Your task to perform on an android device: turn on showing notifications on the lock screen Image 0: 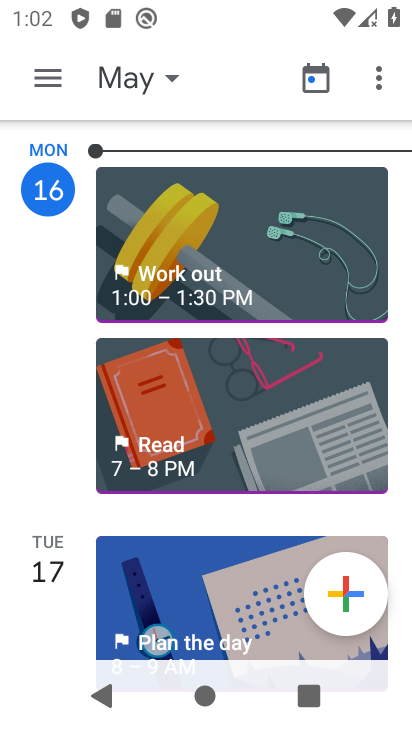
Step 0: press home button
Your task to perform on an android device: turn on showing notifications on the lock screen Image 1: 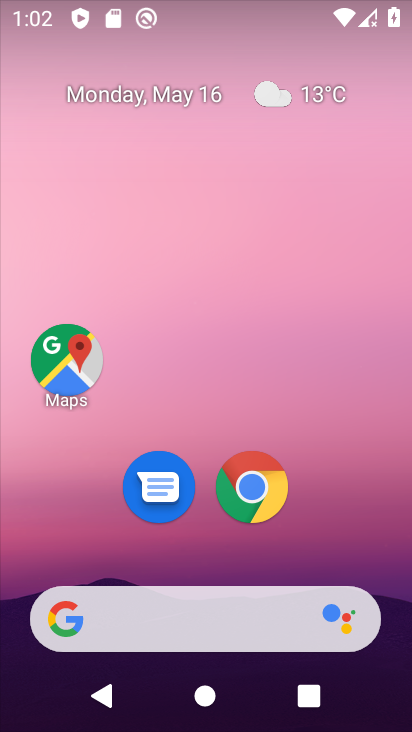
Step 1: drag from (348, 229) to (336, 169)
Your task to perform on an android device: turn on showing notifications on the lock screen Image 2: 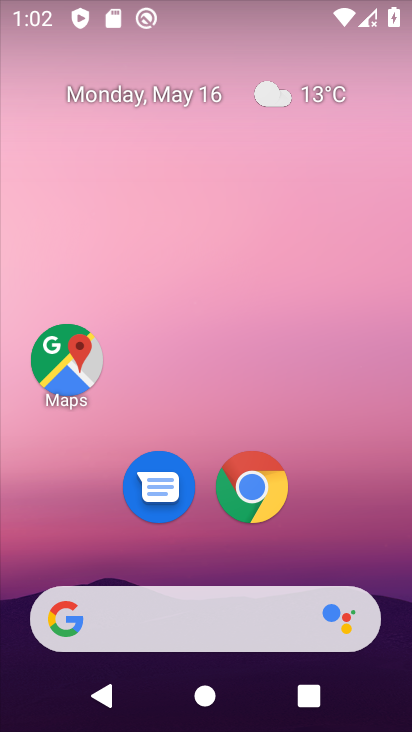
Step 2: drag from (400, 623) to (343, 6)
Your task to perform on an android device: turn on showing notifications on the lock screen Image 3: 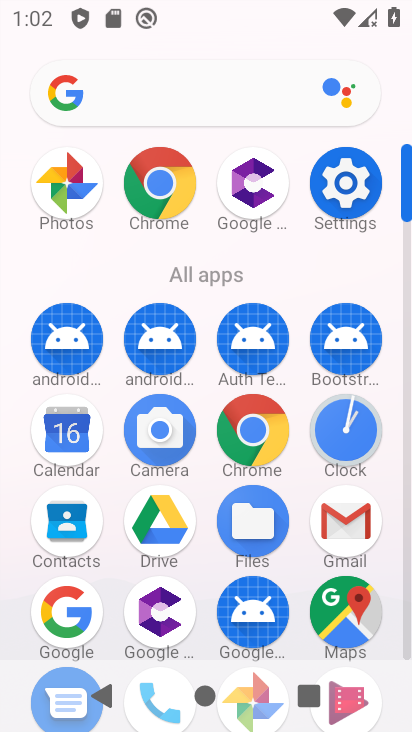
Step 3: click (336, 206)
Your task to perform on an android device: turn on showing notifications on the lock screen Image 4: 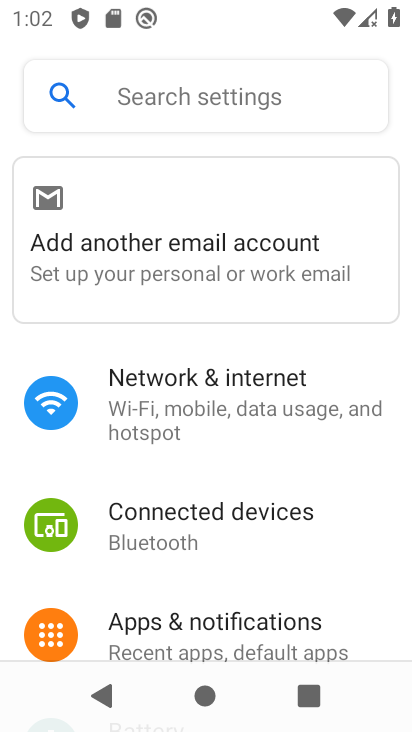
Step 4: click (162, 462)
Your task to perform on an android device: turn on showing notifications on the lock screen Image 5: 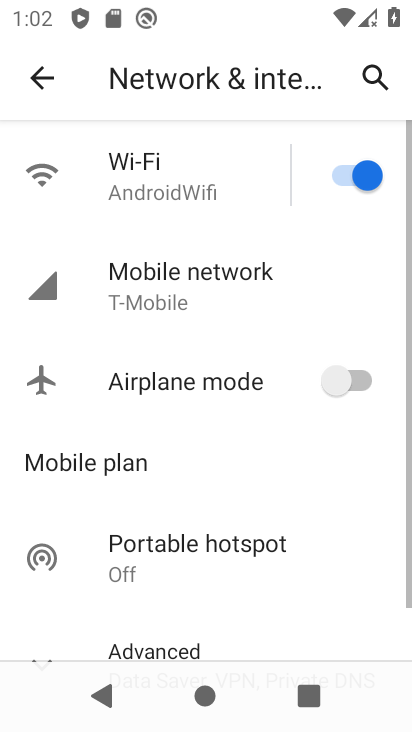
Step 5: click (37, 66)
Your task to perform on an android device: turn on showing notifications on the lock screen Image 6: 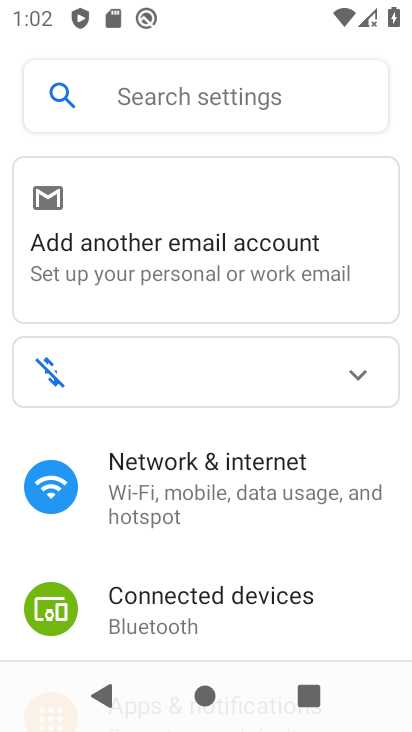
Step 6: click (184, 478)
Your task to perform on an android device: turn on showing notifications on the lock screen Image 7: 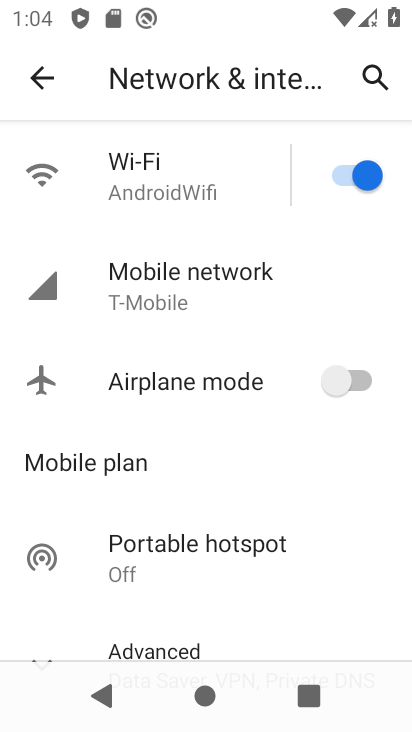
Step 7: drag from (357, 506) to (366, 301)
Your task to perform on an android device: turn on showing notifications on the lock screen Image 8: 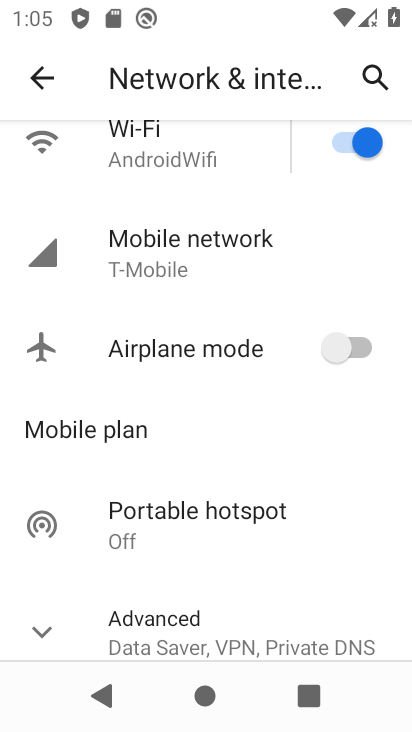
Step 8: click (219, 620)
Your task to perform on an android device: turn on showing notifications on the lock screen Image 9: 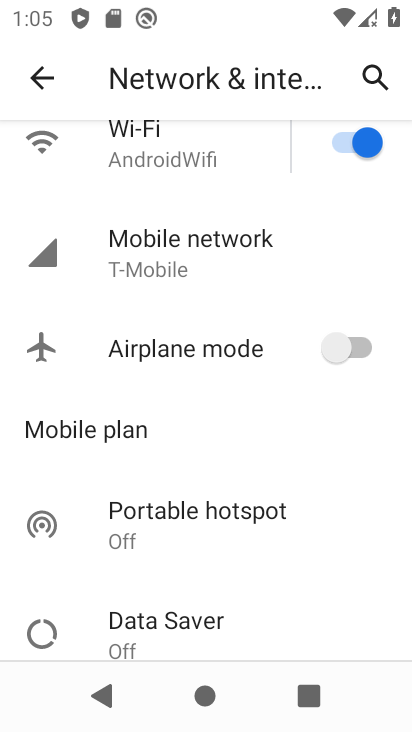
Step 9: click (37, 77)
Your task to perform on an android device: turn on showing notifications on the lock screen Image 10: 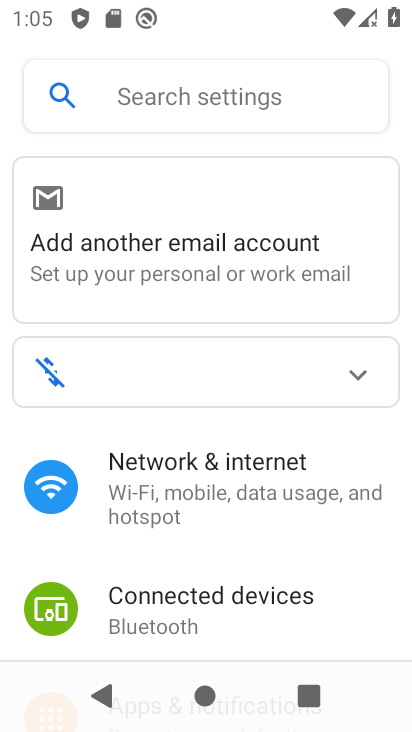
Step 10: click (186, 587)
Your task to perform on an android device: turn on showing notifications on the lock screen Image 11: 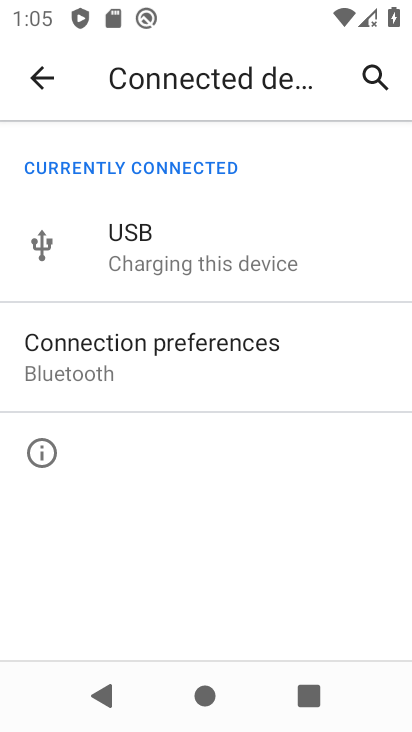
Step 11: click (34, 79)
Your task to perform on an android device: turn on showing notifications on the lock screen Image 12: 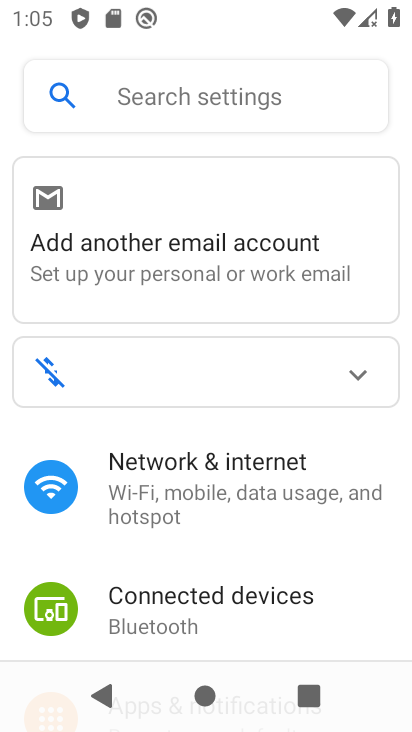
Step 12: drag from (309, 606) to (281, 287)
Your task to perform on an android device: turn on showing notifications on the lock screen Image 13: 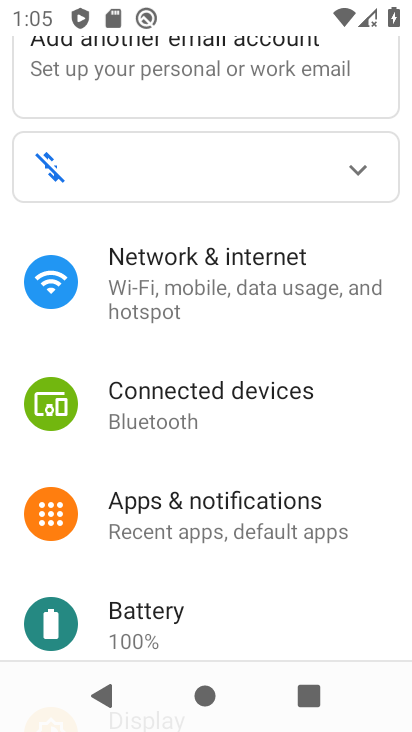
Step 13: click (164, 521)
Your task to perform on an android device: turn on showing notifications on the lock screen Image 14: 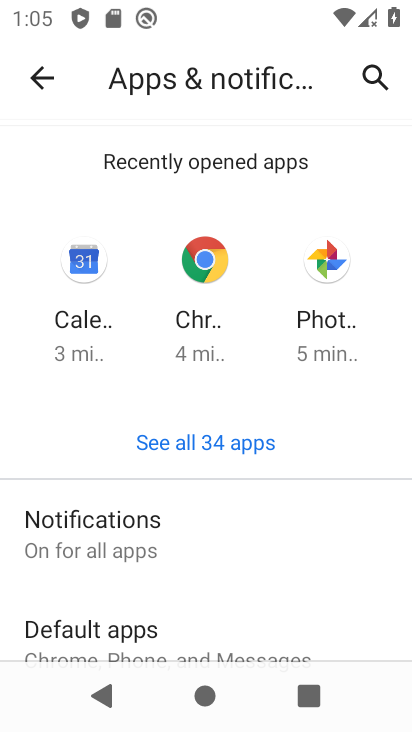
Step 14: drag from (291, 609) to (316, 373)
Your task to perform on an android device: turn on showing notifications on the lock screen Image 15: 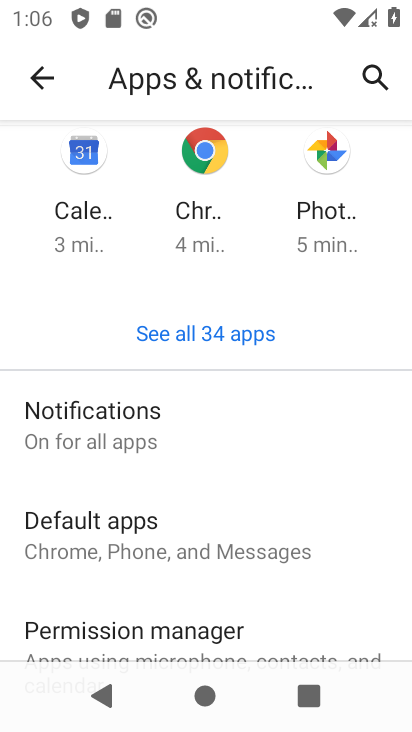
Step 15: click (95, 417)
Your task to perform on an android device: turn on showing notifications on the lock screen Image 16: 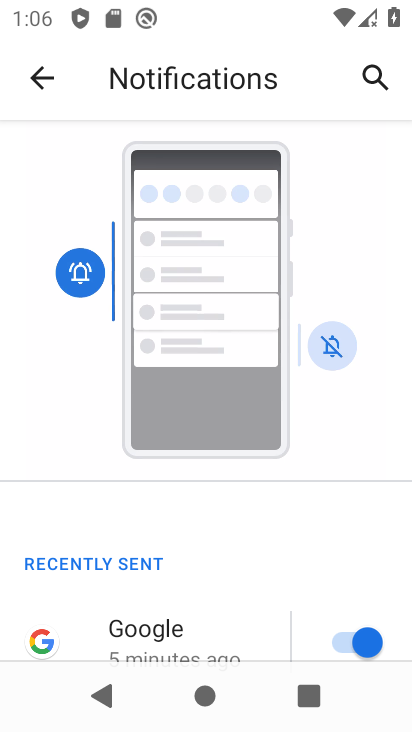
Step 16: drag from (366, 558) to (381, 231)
Your task to perform on an android device: turn on showing notifications on the lock screen Image 17: 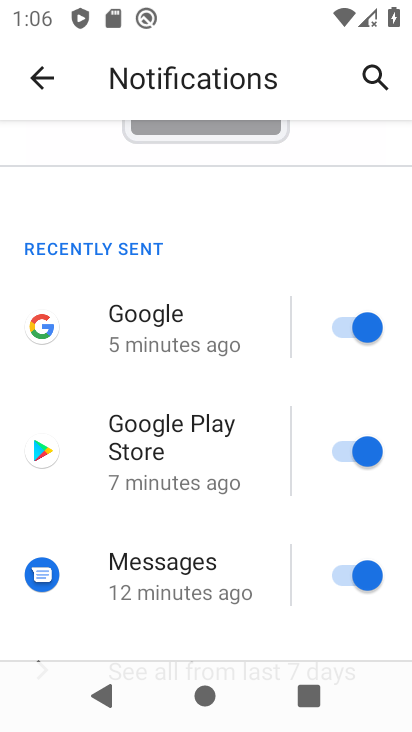
Step 17: drag from (260, 624) to (273, 350)
Your task to perform on an android device: turn on showing notifications on the lock screen Image 18: 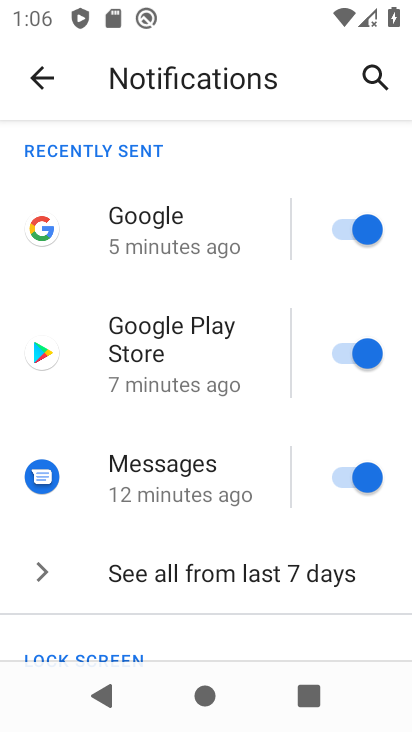
Step 18: drag from (258, 634) to (258, 372)
Your task to perform on an android device: turn on showing notifications on the lock screen Image 19: 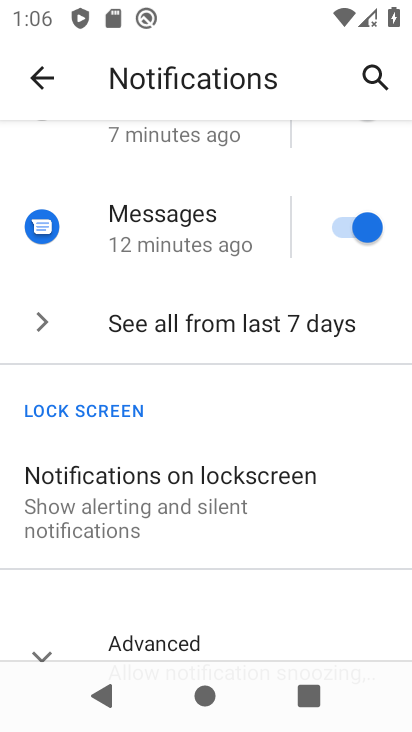
Step 19: drag from (242, 375) to (244, 302)
Your task to perform on an android device: turn on showing notifications on the lock screen Image 20: 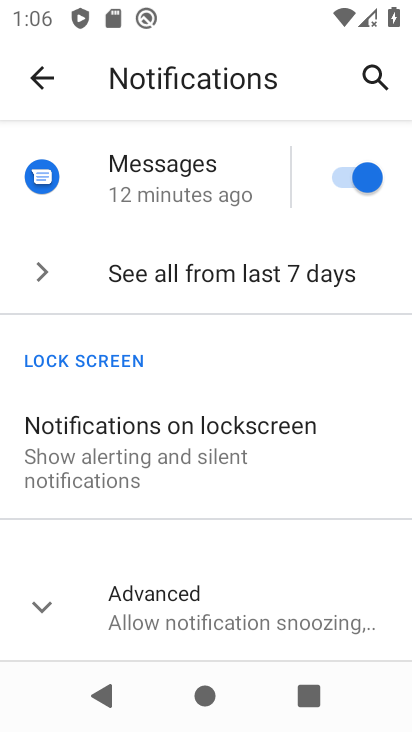
Step 20: click (95, 442)
Your task to perform on an android device: turn on showing notifications on the lock screen Image 21: 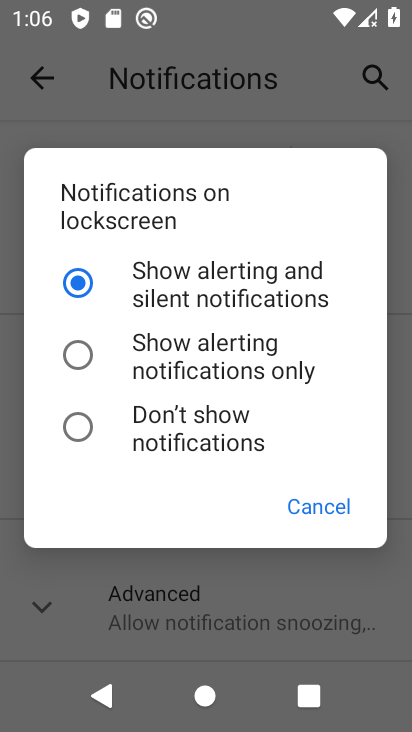
Step 21: task complete